Your task to perform on an android device: turn off wifi Image 0: 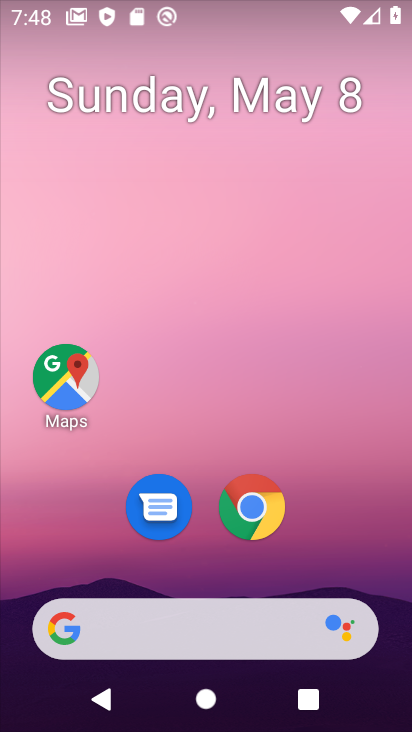
Step 0: drag from (268, 676) to (264, 75)
Your task to perform on an android device: turn off wifi Image 1: 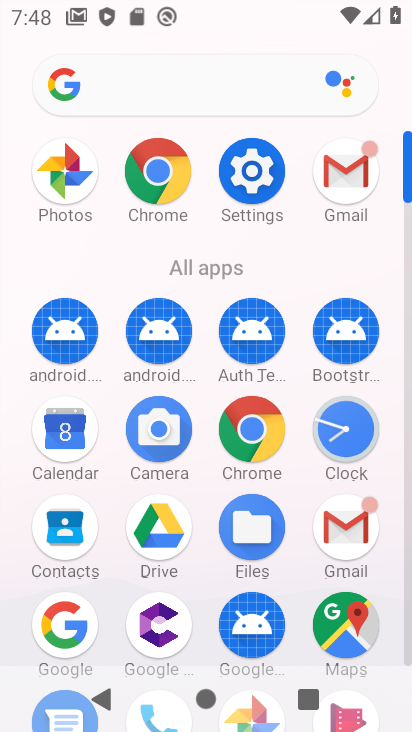
Step 1: click (255, 191)
Your task to perform on an android device: turn off wifi Image 2: 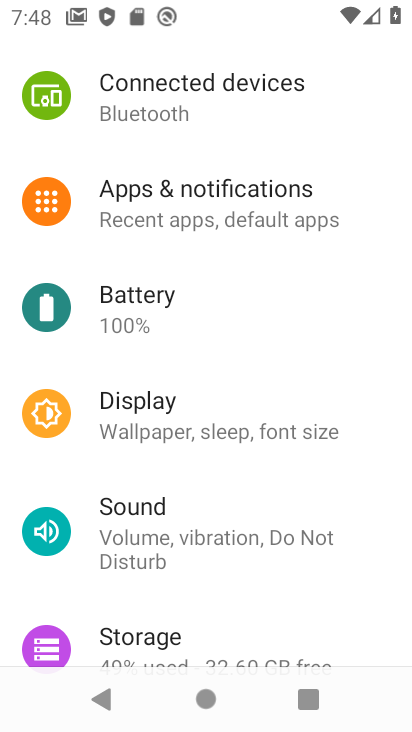
Step 2: click (308, 204)
Your task to perform on an android device: turn off wifi Image 3: 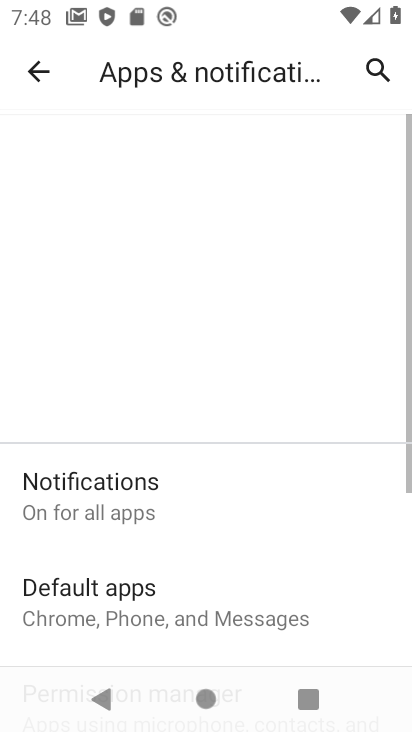
Step 3: press back button
Your task to perform on an android device: turn off wifi Image 4: 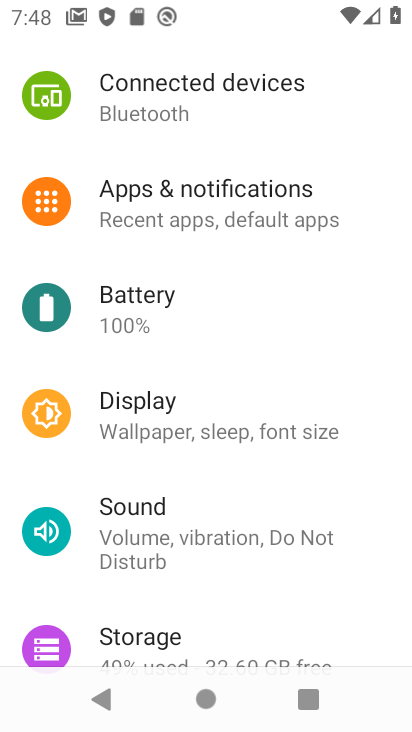
Step 4: drag from (314, 145) to (241, 639)
Your task to perform on an android device: turn off wifi Image 5: 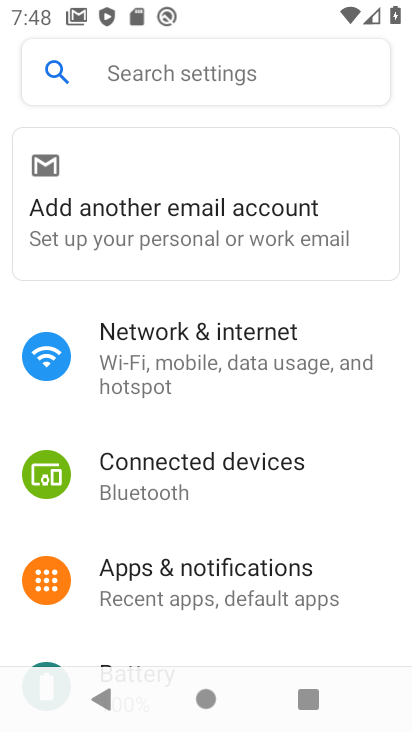
Step 5: click (291, 338)
Your task to perform on an android device: turn off wifi Image 6: 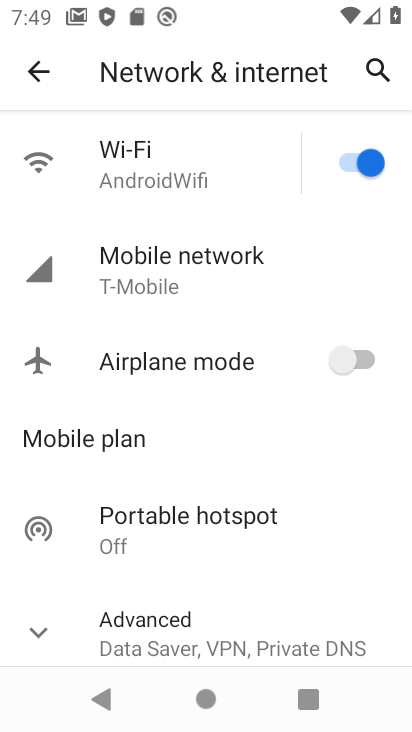
Step 6: click (359, 155)
Your task to perform on an android device: turn off wifi Image 7: 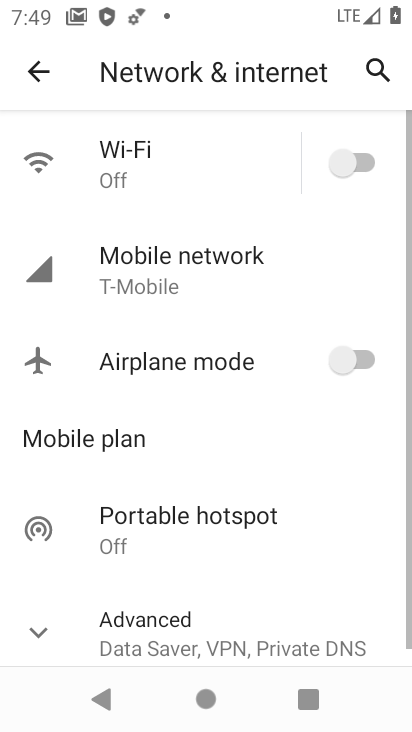
Step 7: task complete